Your task to perform on an android device: Open display settings Image 0: 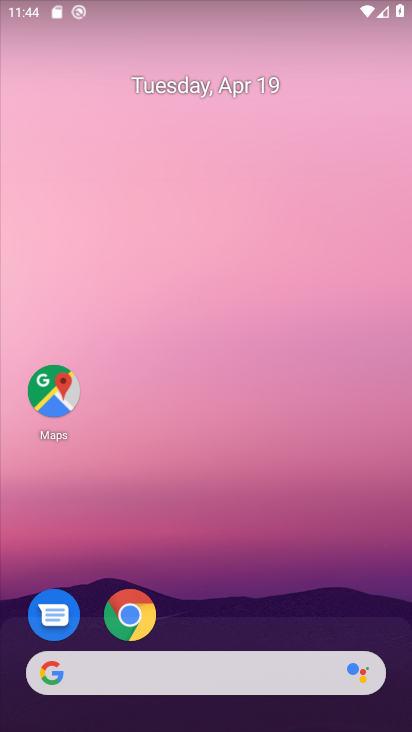
Step 0: drag from (242, 674) to (226, 138)
Your task to perform on an android device: Open display settings Image 1: 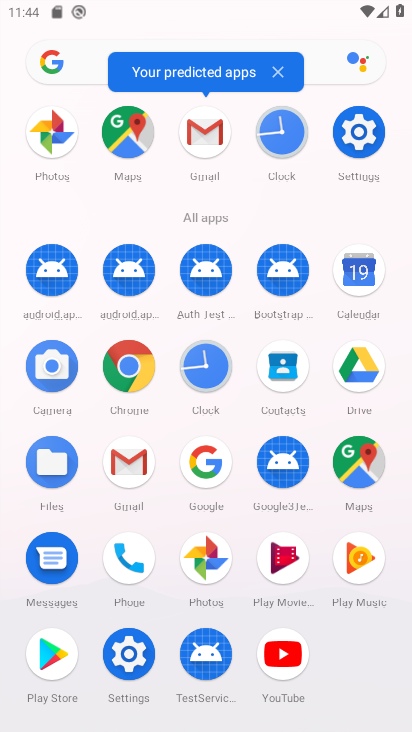
Step 1: click (364, 149)
Your task to perform on an android device: Open display settings Image 2: 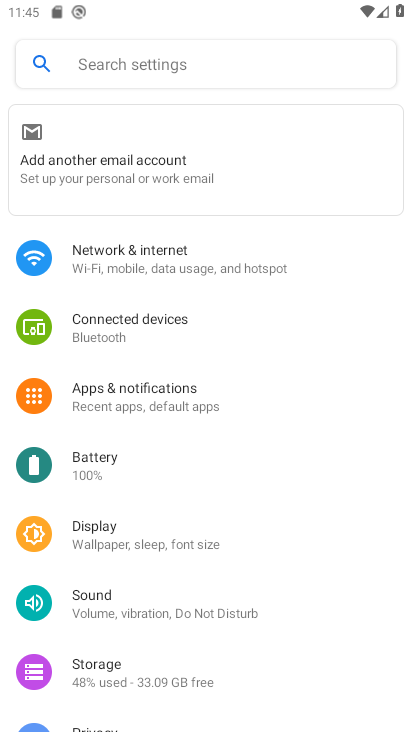
Step 2: click (123, 530)
Your task to perform on an android device: Open display settings Image 3: 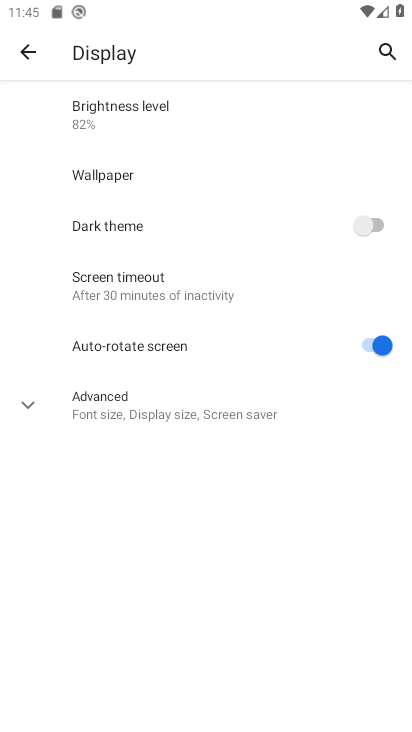
Step 3: click (128, 399)
Your task to perform on an android device: Open display settings Image 4: 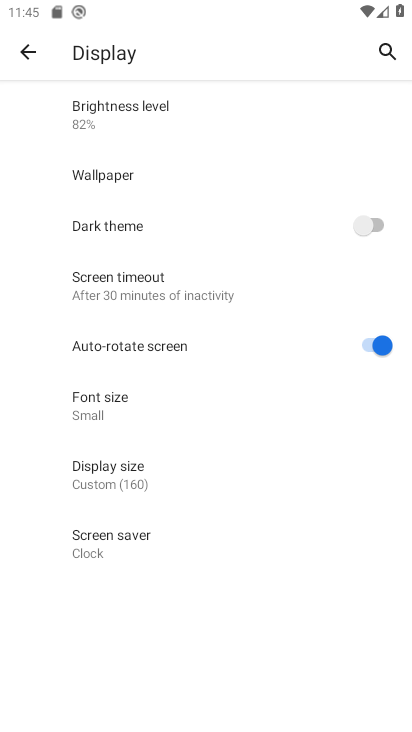
Step 4: task complete